Your task to perform on an android device: empty trash in google photos Image 0: 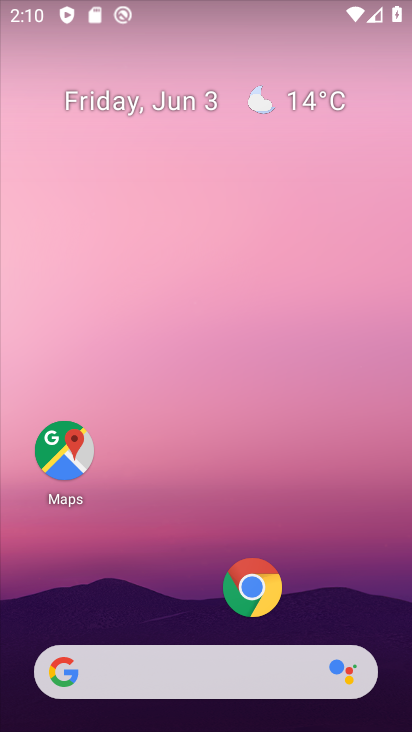
Step 0: drag from (158, 542) to (247, 20)
Your task to perform on an android device: empty trash in google photos Image 1: 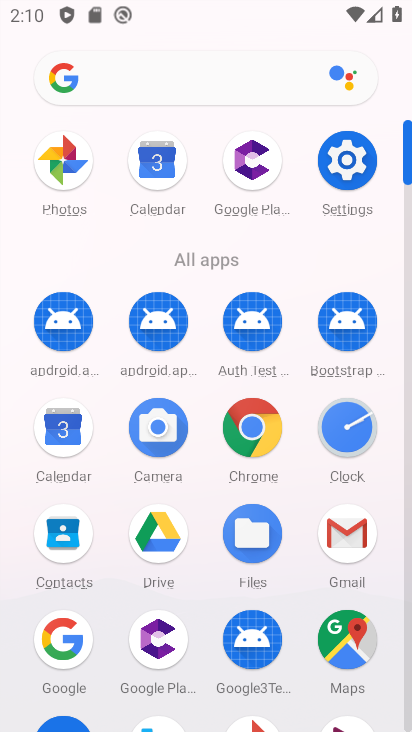
Step 1: drag from (218, 594) to (261, 238)
Your task to perform on an android device: empty trash in google photos Image 2: 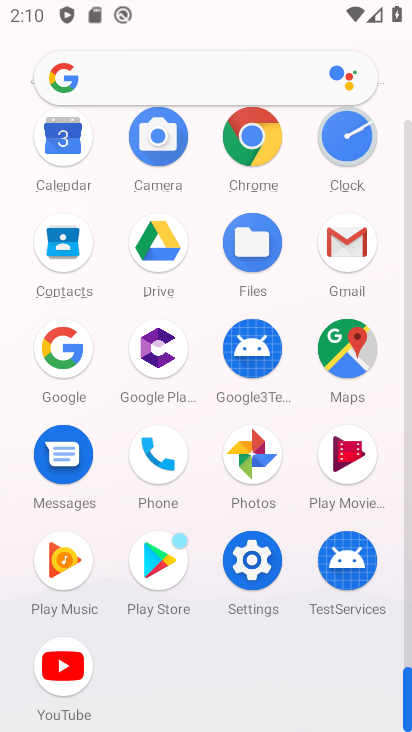
Step 2: click (259, 462)
Your task to perform on an android device: empty trash in google photos Image 3: 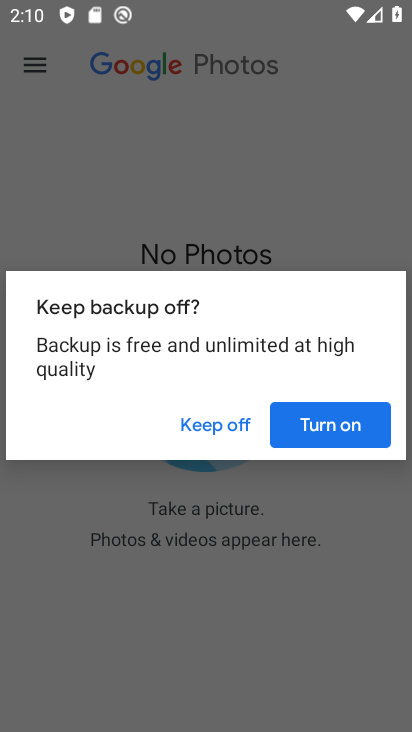
Step 3: click (225, 420)
Your task to perform on an android device: empty trash in google photos Image 4: 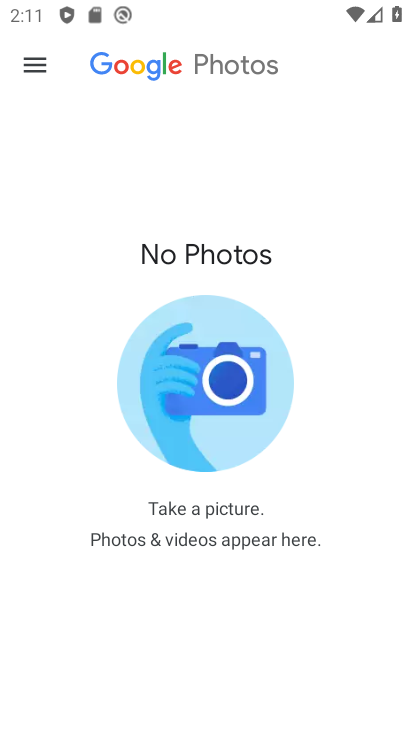
Step 4: click (37, 58)
Your task to perform on an android device: empty trash in google photos Image 5: 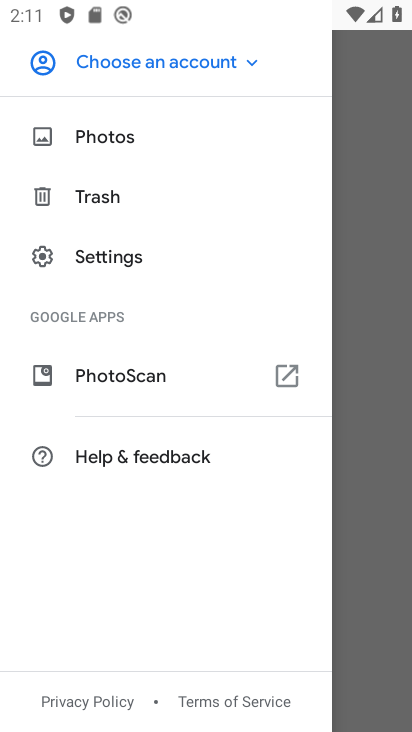
Step 5: click (91, 191)
Your task to perform on an android device: empty trash in google photos Image 6: 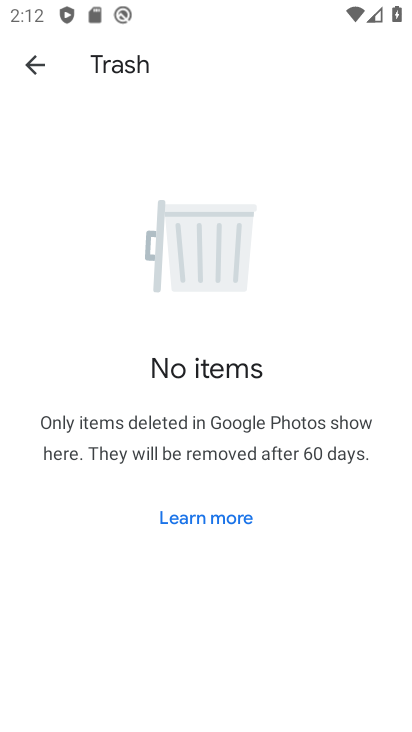
Step 6: task complete